Your task to perform on an android device: turn on improve location accuracy Image 0: 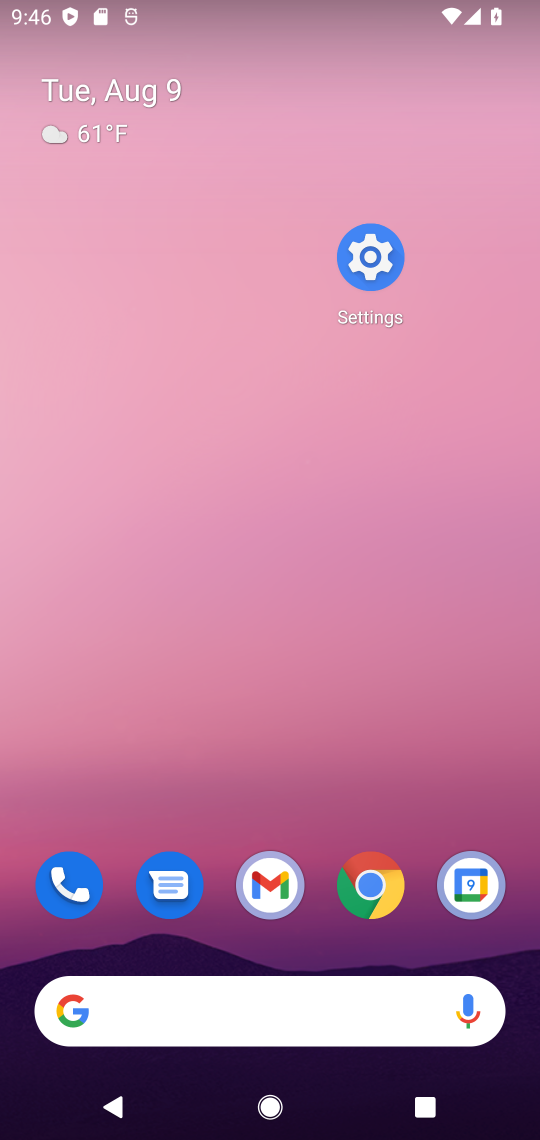
Step 0: press home button
Your task to perform on an android device: turn on improve location accuracy Image 1: 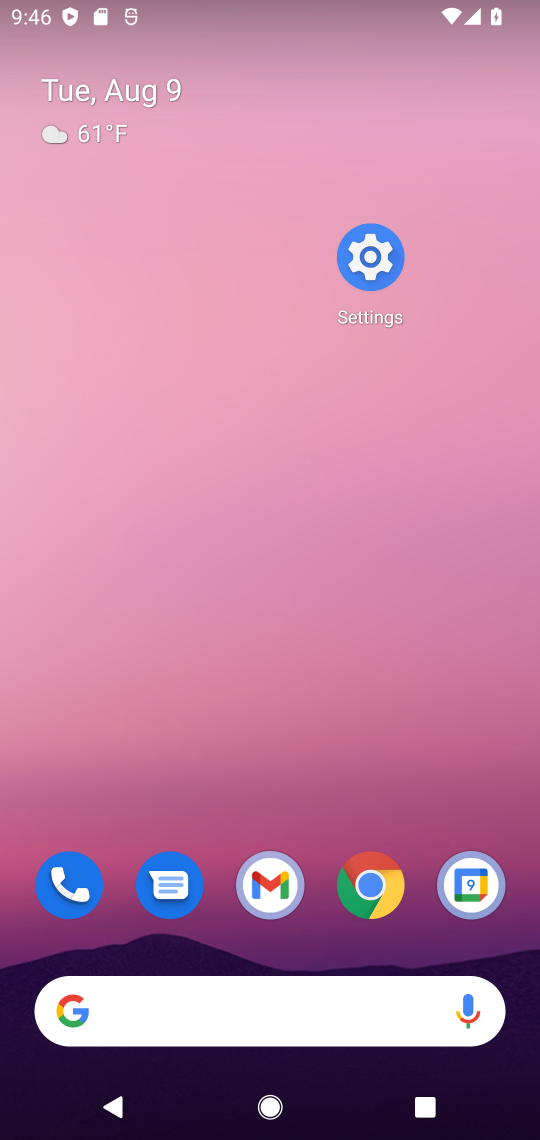
Step 1: drag from (312, 839) to (336, 88)
Your task to perform on an android device: turn on improve location accuracy Image 2: 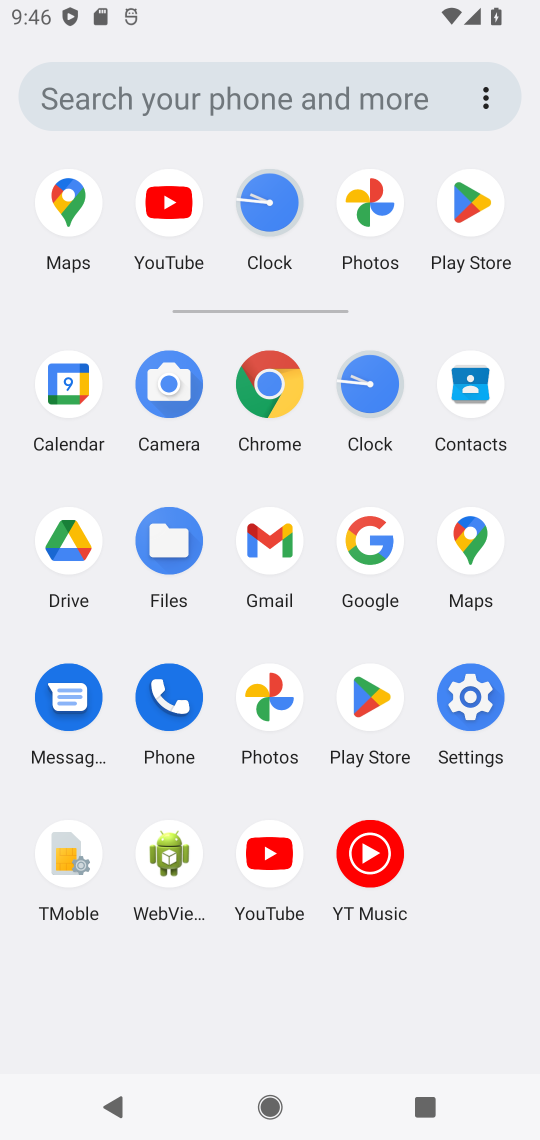
Step 2: click (473, 686)
Your task to perform on an android device: turn on improve location accuracy Image 3: 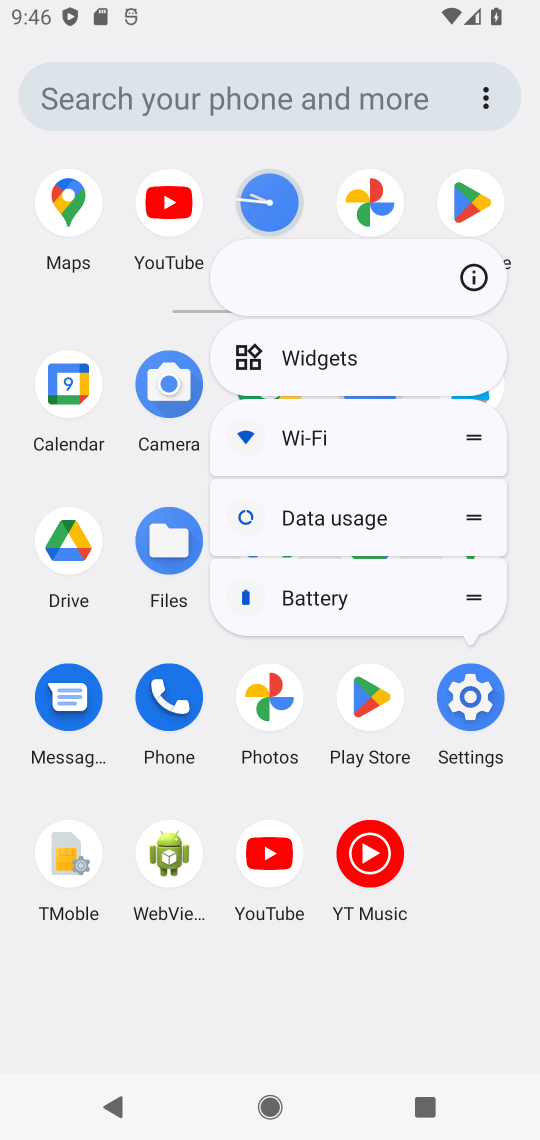
Step 3: click (468, 695)
Your task to perform on an android device: turn on improve location accuracy Image 4: 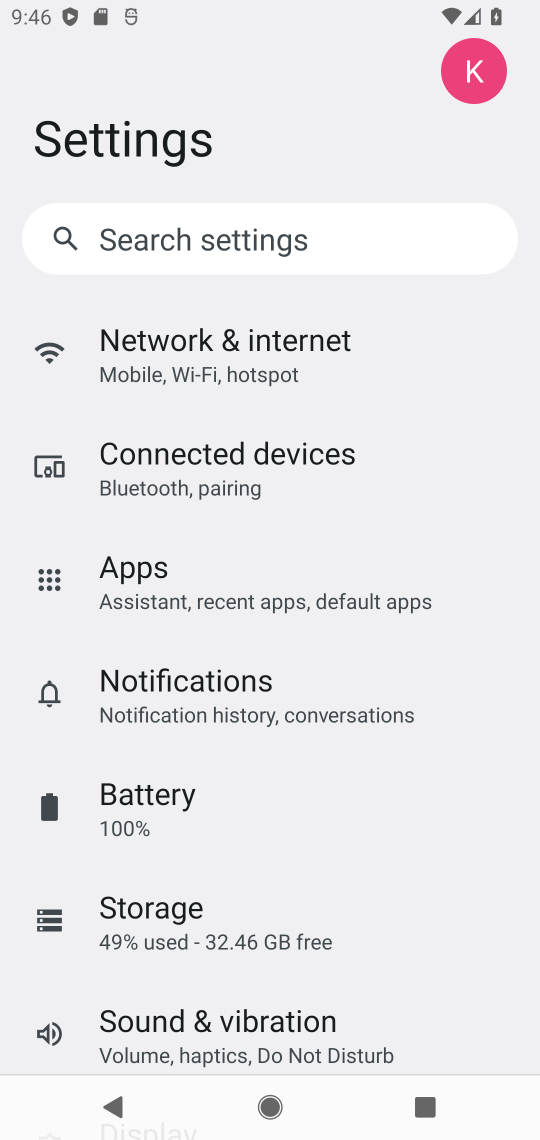
Step 4: drag from (343, 1012) to (361, 328)
Your task to perform on an android device: turn on improve location accuracy Image 5: 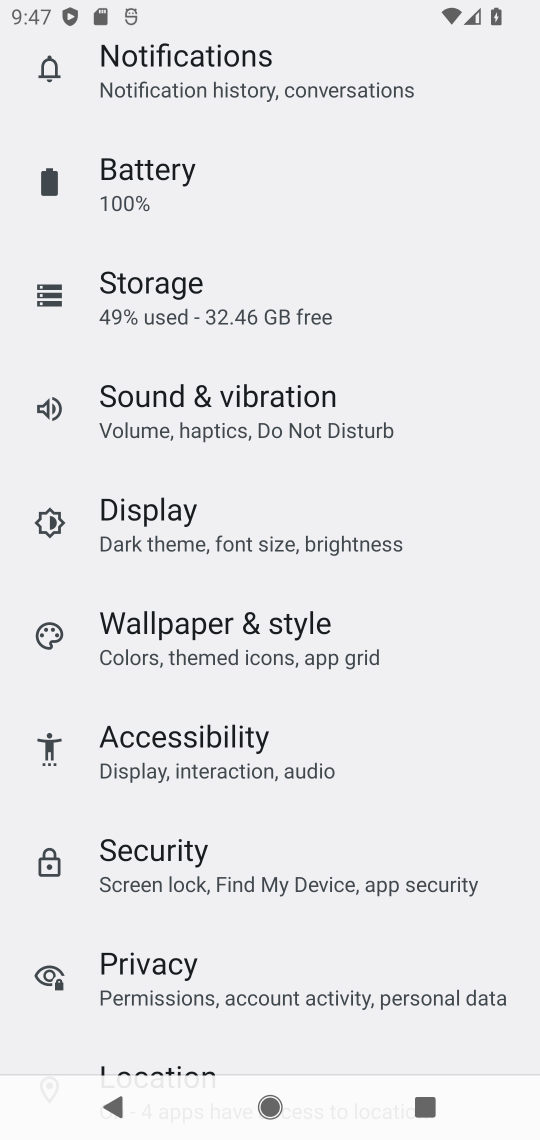
Step 5: click (255, 1056)
Your task to perform on an android device: turn on improve location accuracy Image 6: 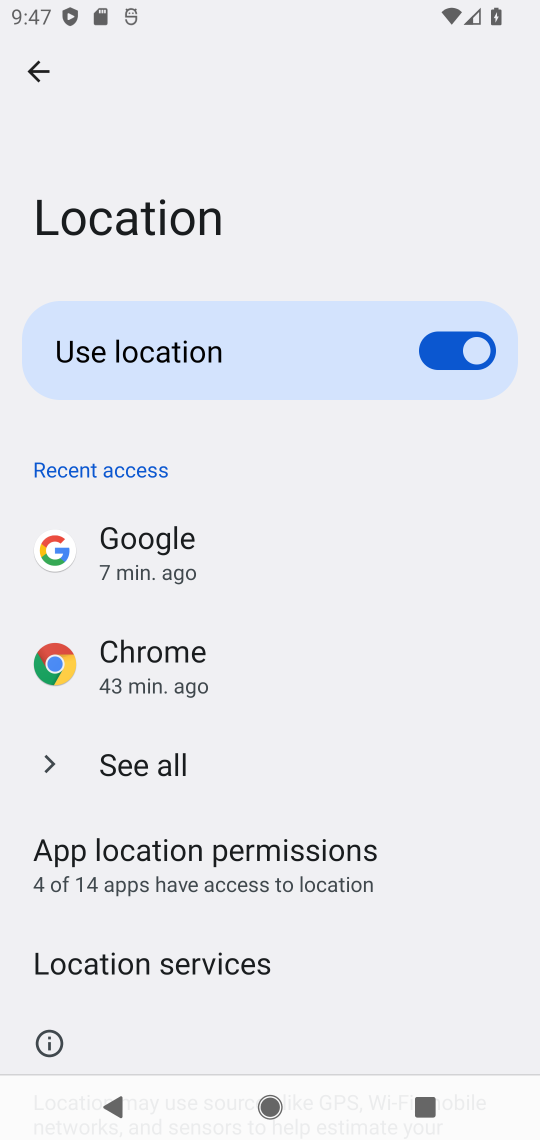
Step 6: task complete